Your task to perform on an android device: turn on translation in the chrome app Image 0: 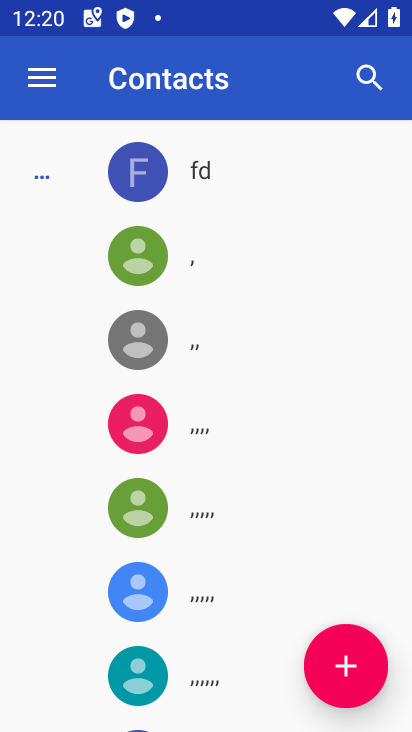
Step 0: press home button
Your task to perform on an android device: turn on translation in the chrome app Image 1: 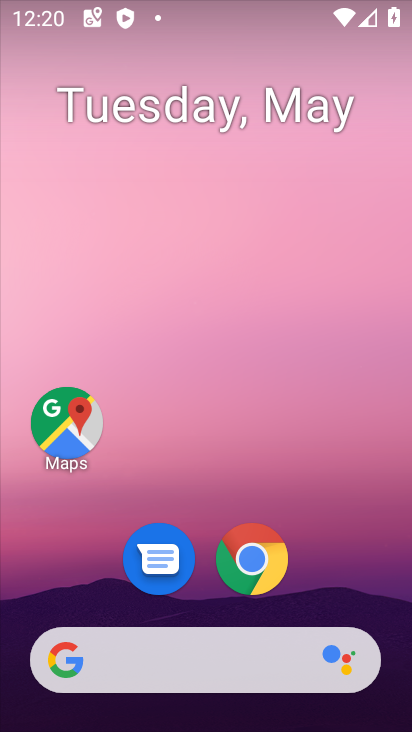
Step 1: click (254, 580)
Your task to perform on an android device: turn on translation in the chrome app Image 2: 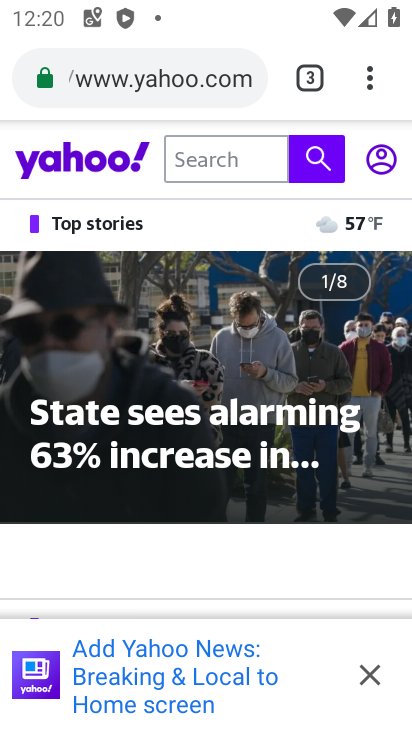
Step 2: click (373, 84)
Your task to perform on an android device: turn on translation in the chrome app Image 3: 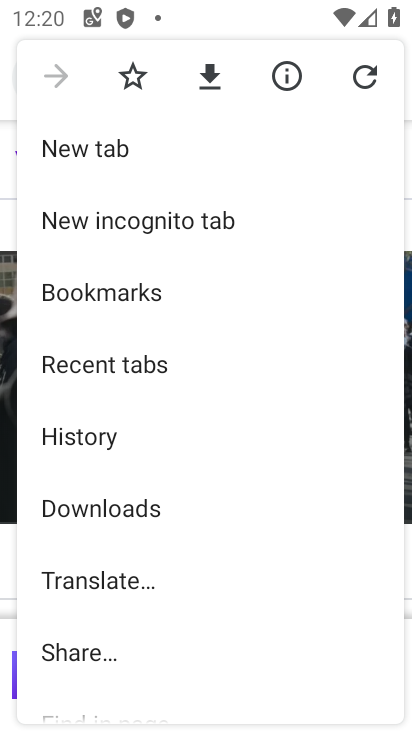
Step 3: drag from (195, 612) to (223, 241)
Your task to perform on an android device: turn on translation in the chrome app Image 4: 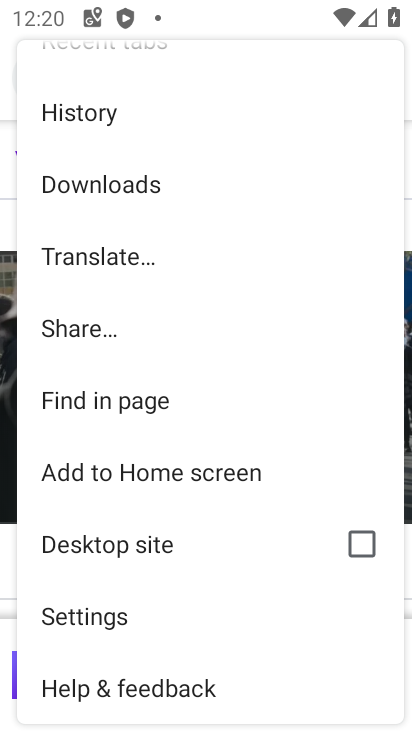
Step 4: click (153, 600)
Your task to perform on an android device: turn on translation in the chrome app Image 5: 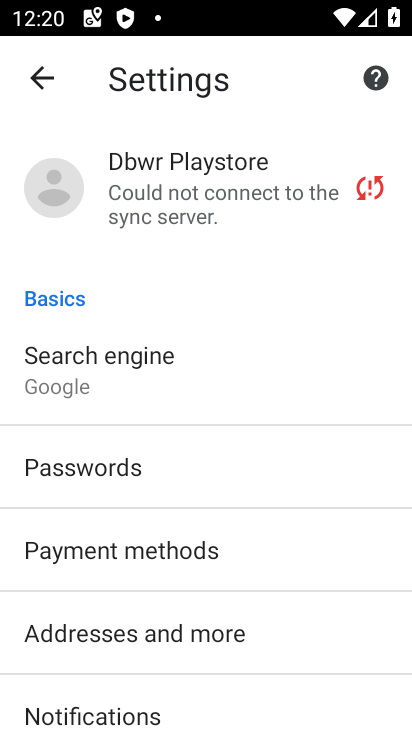
Step 5: drag from (232, 500) to (271, 258)
Your task to perform on an android device: turn on translation in the chrome app Image 6: 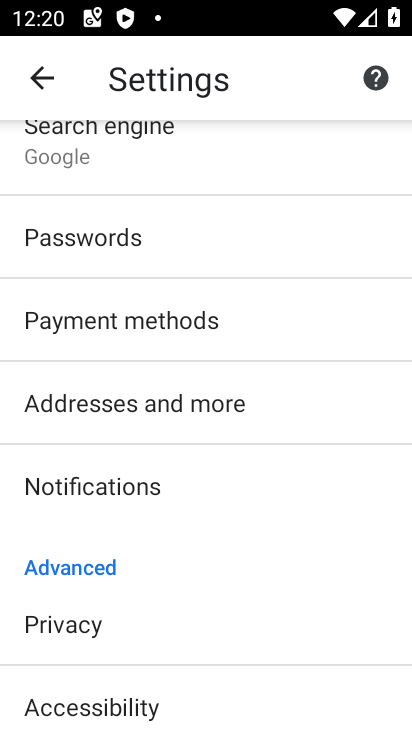
Step 6: drag from (254, 703) to (282, 427)
Your task to perform on an android device: turn on translation in the chrome app Image 7: 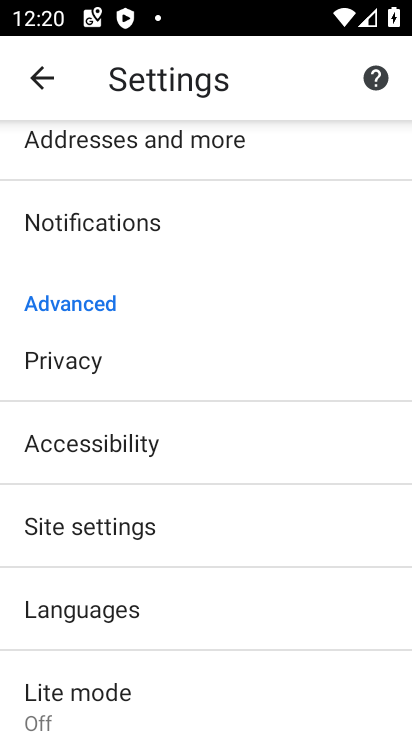
Step 7: click (230, 539)
Your task to perform on an android device: turn on translation in the chrome app Image 8: 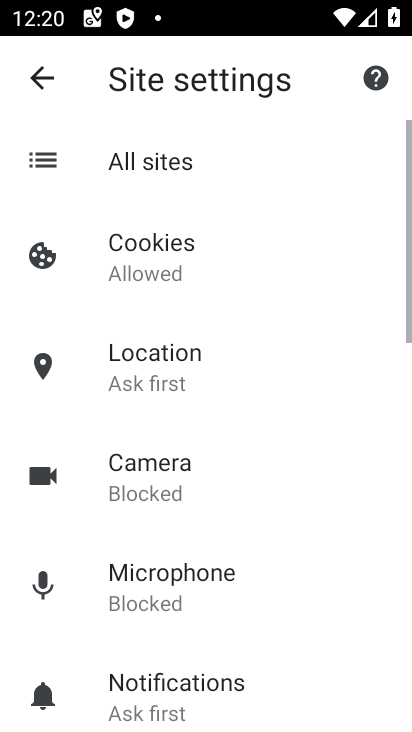
Step 8: task complete